Your task to perform on an android device: turn on notifications settings in the gmail app Image 0: 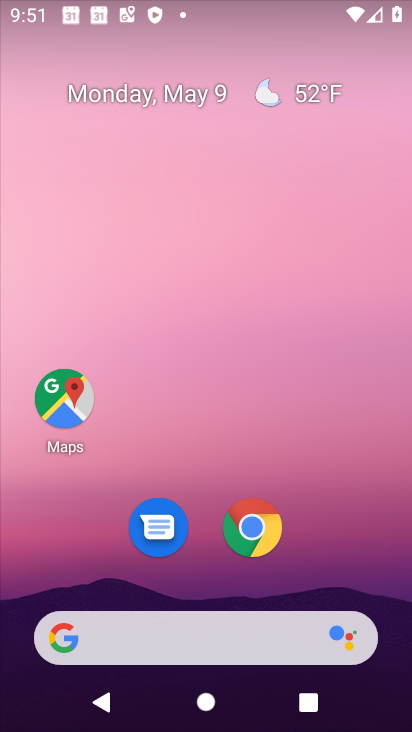
Step 0: drag from (205, 576) to (155, 123)
Your task to perform on an android device: turn on notifications settings in the gmail app Image 1: 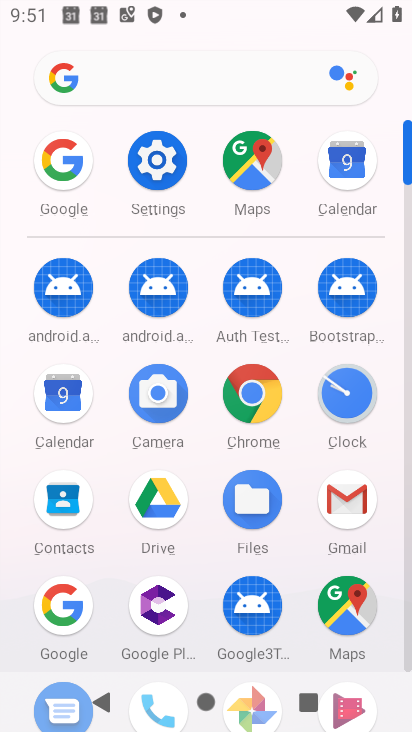
Step 1: click (352, 497)
Your task to perform on an android device: turn on notifications settings in the gmail app Image 2: 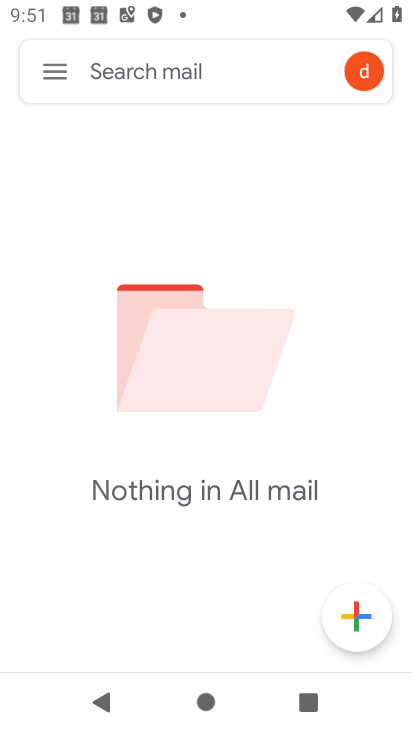
Step 2: click (55, 69)
Your task to perform on an android device: turn on notifications settings in the gmail app Image 3: 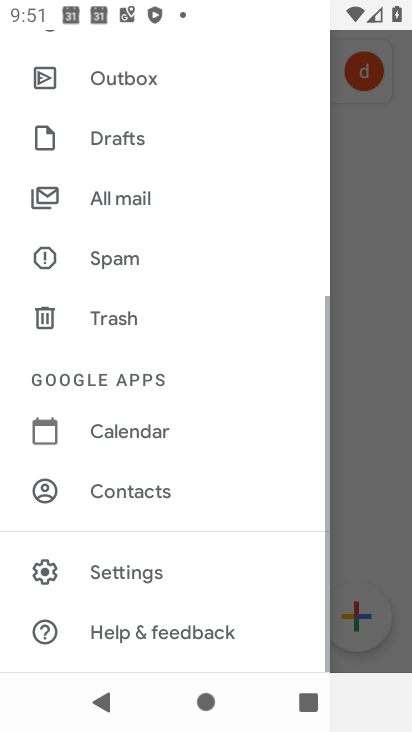
Step 3: click (142, 572)
Your task to perform on an android device: turn on notifications settings in the gmail app Image 4: 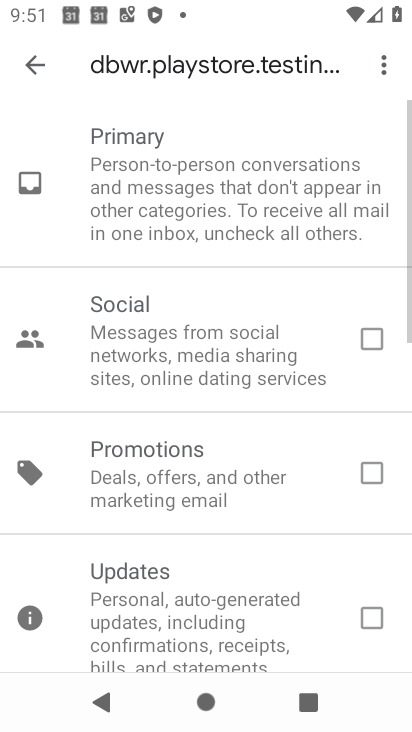
Step 4: drag from (162, 189) to (196, 654)
Your task to perform on an android device: turn on notifications settings in the gmail app Image 5: 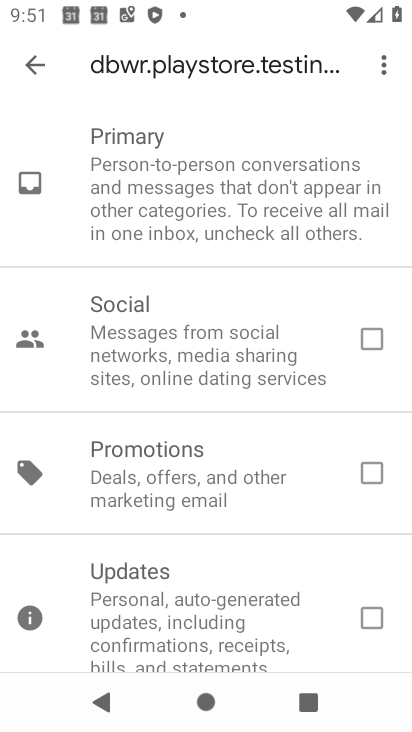
Step 5: press back button
Your task to perform on an android device: turn on notifications settings in the gmail app Image 6: 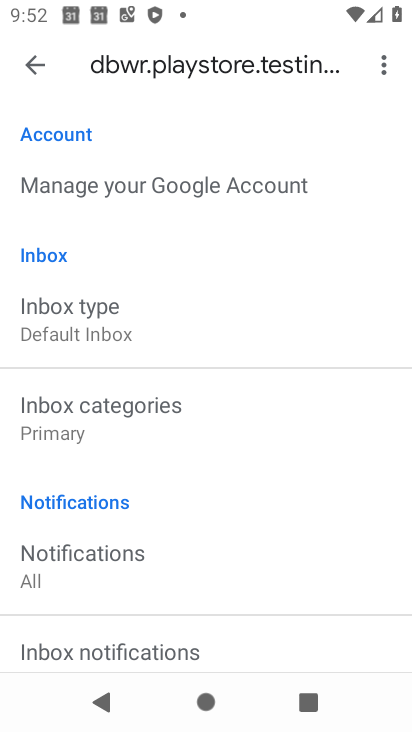
Step 6: click (99, 549)
Your task to perform on an android device: turn on notifications settings in the gmail app Image 7: 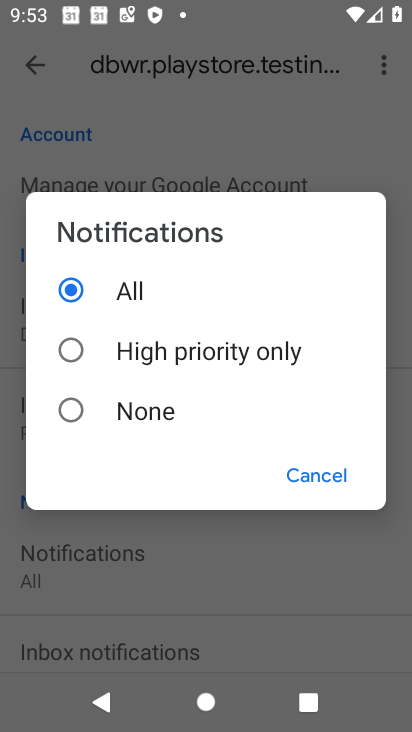
Step 7: task complete